Your task to perform on an android device: set an alarm Image 0: 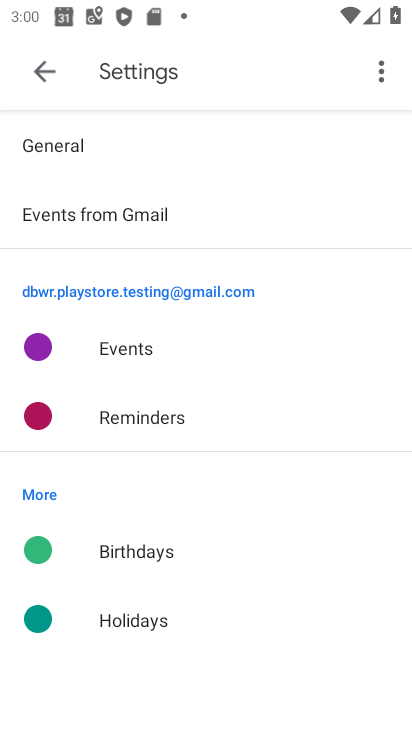
Step 0: press home button
Your task to perform on an android device: set an alarm Image 1: 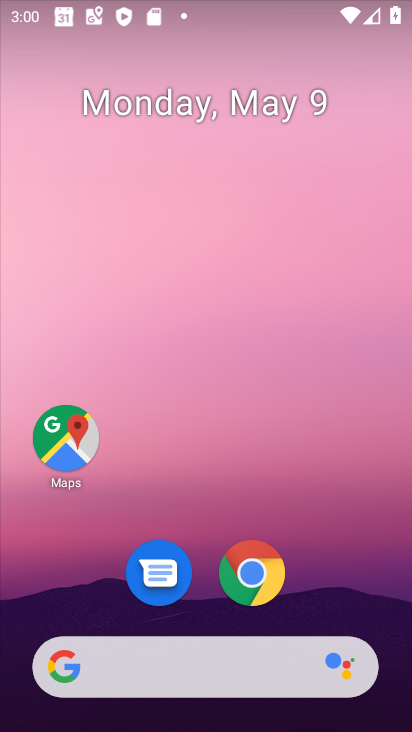
Step 1: drag from (205, 637) to (166, 211)
Your task to perform on an android device: set an alarm Image 2: 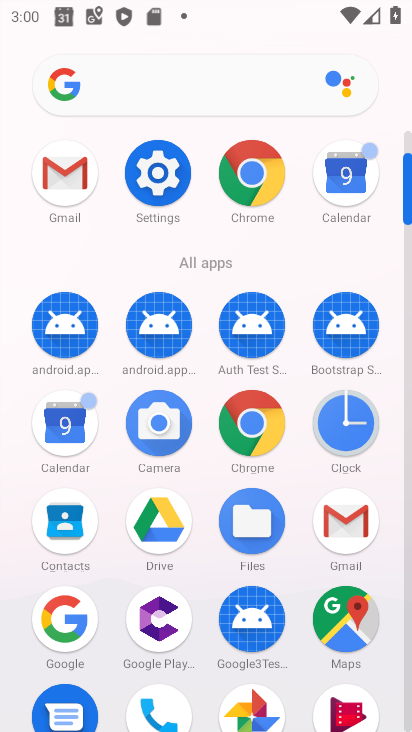
Step 2: click (335, 430)
Your task to perform on an android device: set an alarm Image 3: 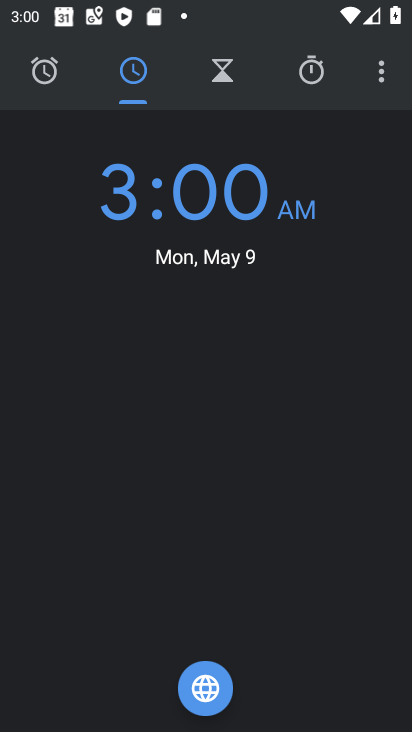
Step 3: click (54, 75)
Your task to perform on an android device: set an alarm Image 4: 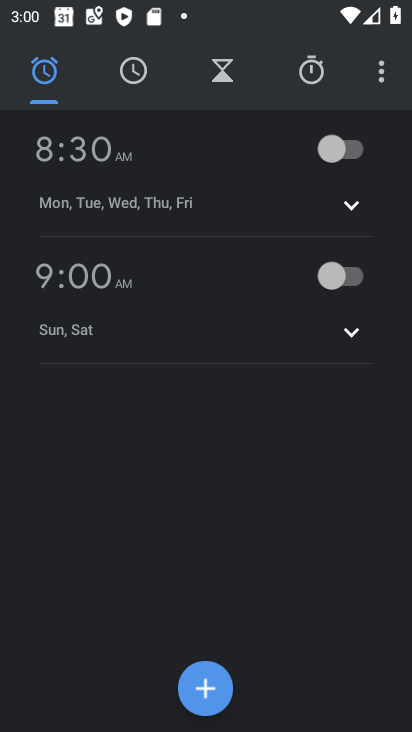
Step 4: click (200, 697)
Your task to perform on an android device: set an alarm Image 5: 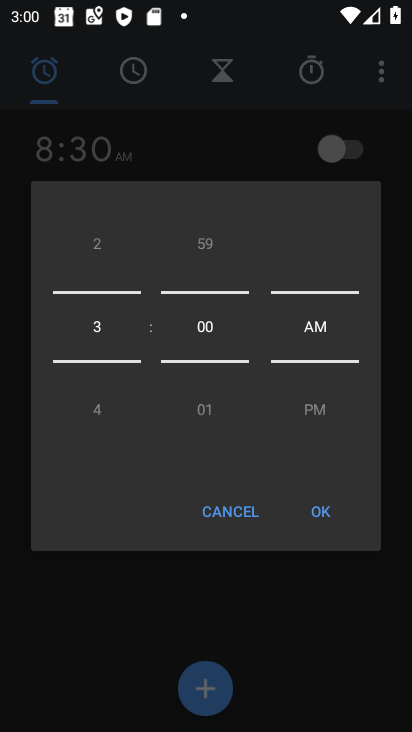
Step 5: drag from (93, 338) to (93, 291)
Your task to perform on an android device: set an alarm Image 6: 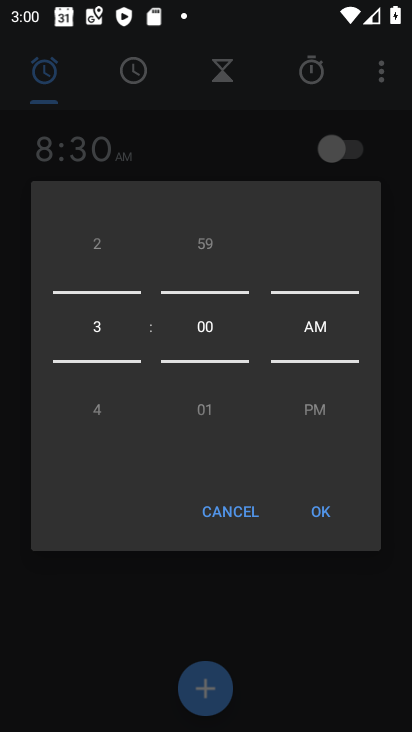
Step 6: drag from (109, 346) to (103, 245)
Your task to perform on an android device: set an alarm Image 7: 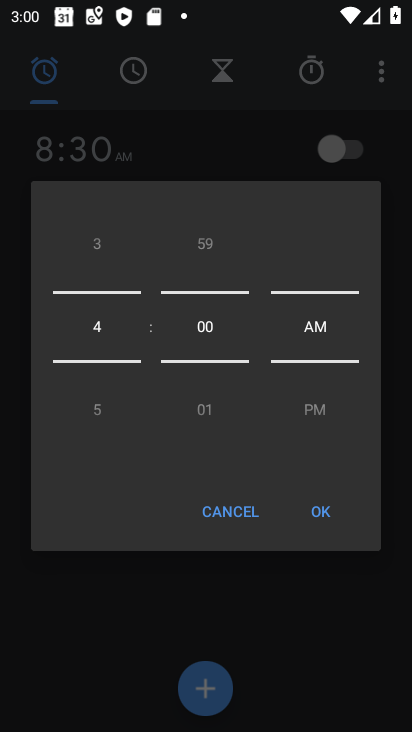
Step 7: click (331, 496)
Your task to perform on an android device: set an alarm Image 8: 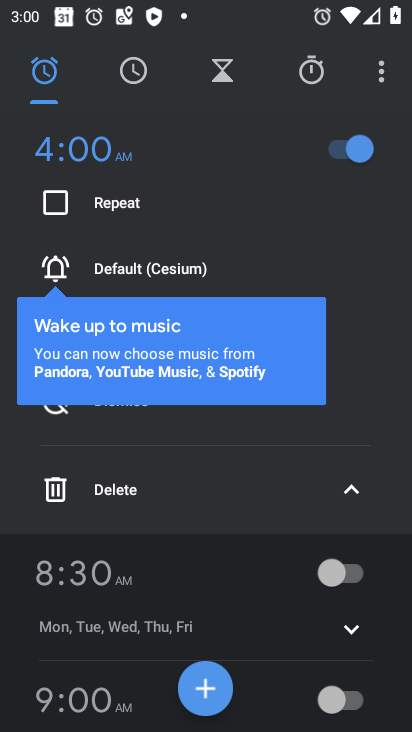
Step 8: task complete